Your task to perform on an android device: Play the last video I watched on Youtube Image 0: 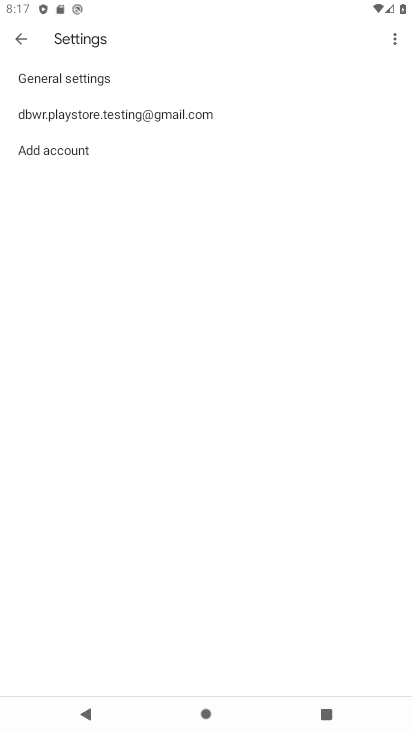
Step 0: press home button
Your task to perform on an android device: Play the last video I watched on Youtube Image 1: 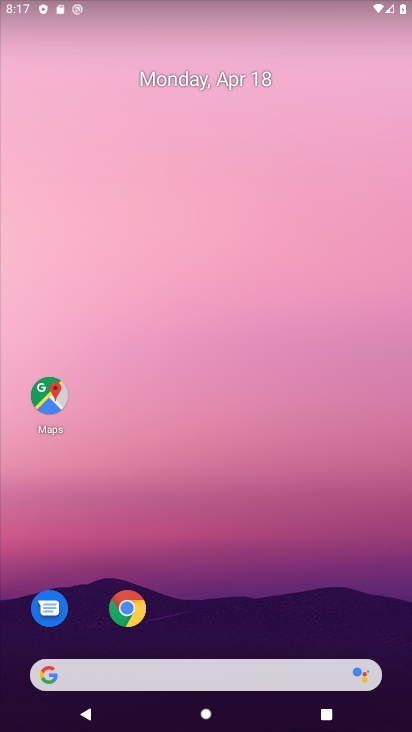
Step 1: drag from (227, 614) to (245, 47)
Your task to perform on an android device: Play the last video I watched on Youtube Image 2: 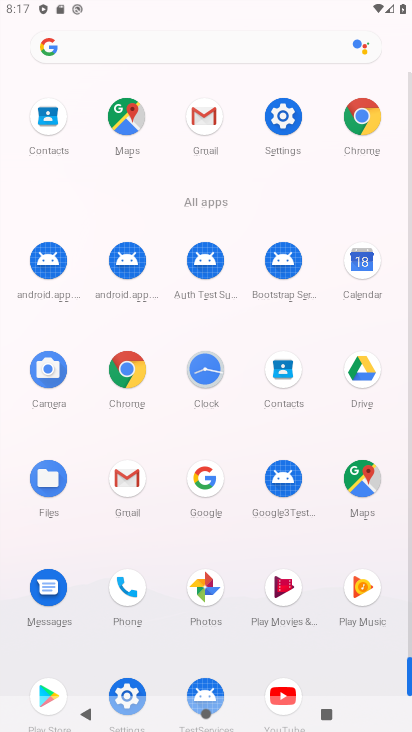
Step 2: drag from (221, 559) to (276, 302)
Your task to perform on an android device: Play the last video I watched on Youtube Image 3: 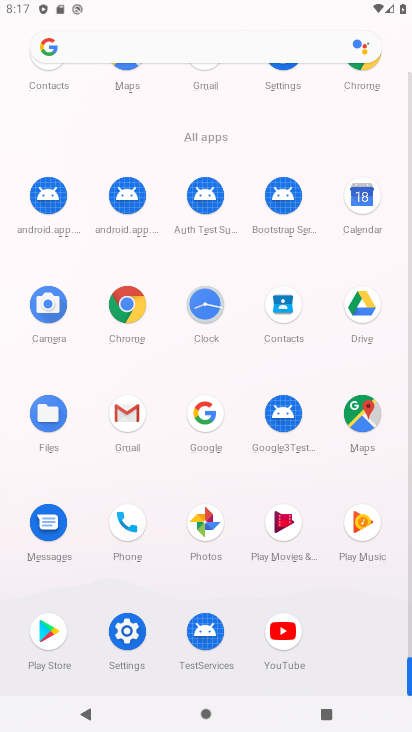
Step 3: click (288, 626)
Your task to perform on an android device: Play the last video I watched on Youtube Image 4: 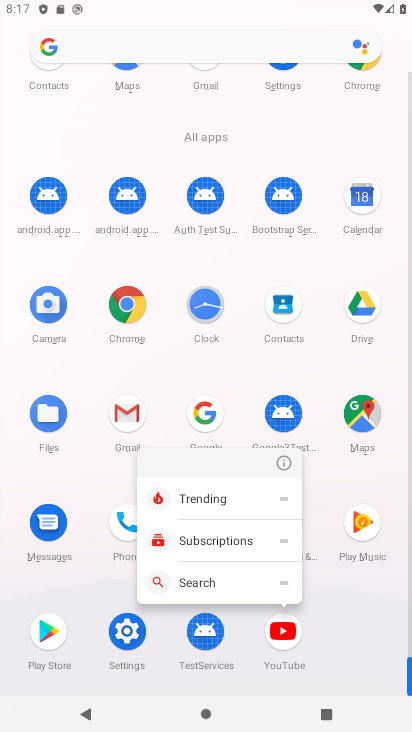
Step 4: click (288, 627)
Your task to perform on an android device: Play the last video I watched on Youtube Image 5: 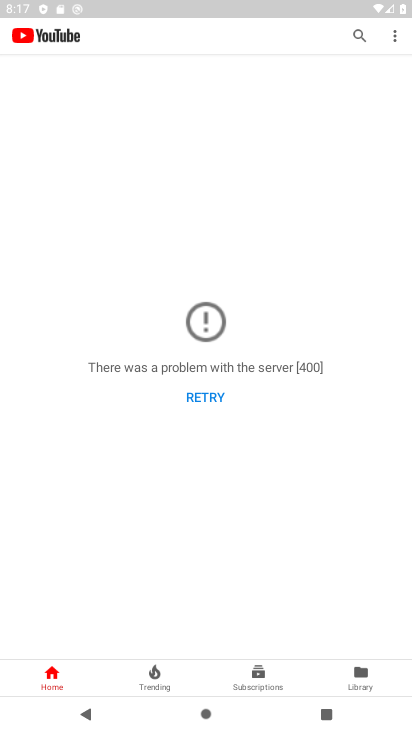
Step 5: click (368, 677)
Your task to perform on an android device: Play the last video I watched on Youtube Image 6: 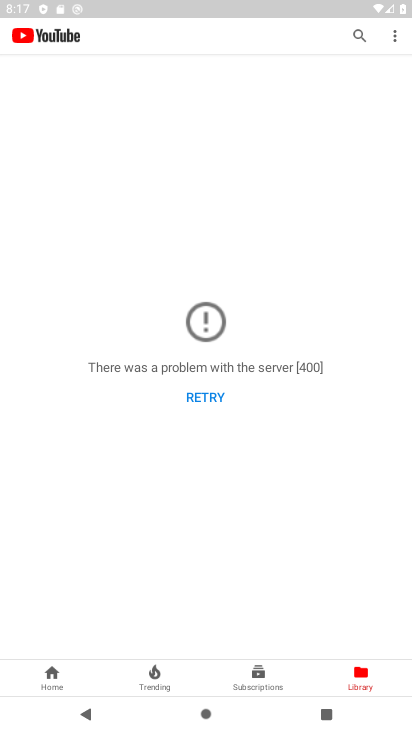
Step 6: click (206, 401)
Your task to perform on an android device: Play the last video I watched on Youtube Image 7: 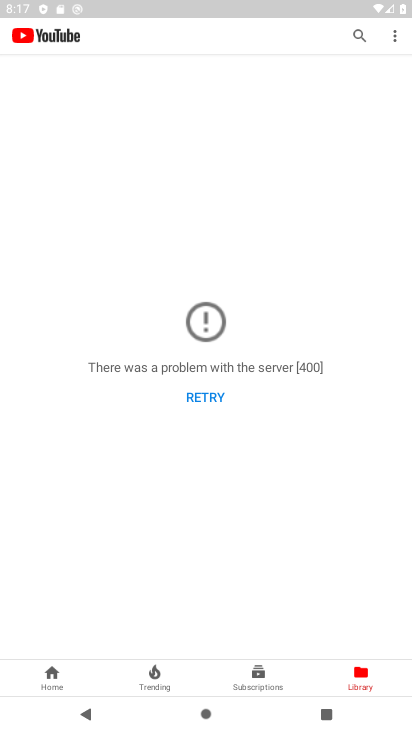
Step 7: click (49, 674)
Your task to perform on an android device: Play the last video I watched on Youtube Image 8: 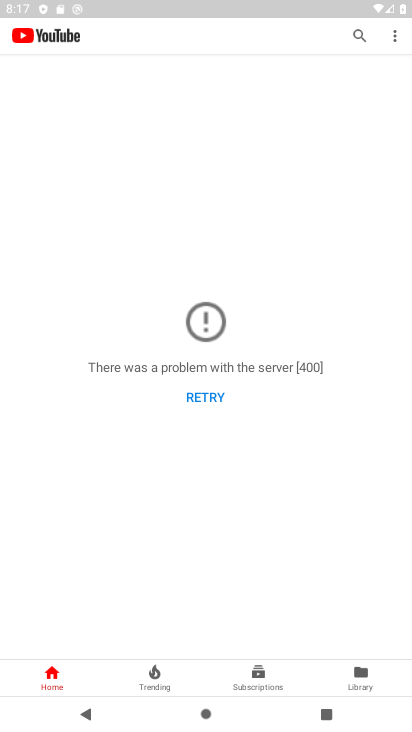
Step 8: click (49, 674)
Your task to perform on an android device: Play the last video I watched on Youtube Image 9: 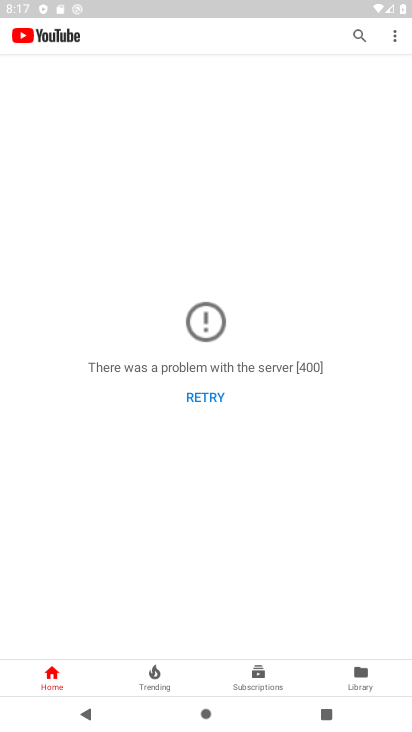
Step 9: click (366, 667)
Your task to perform on an android device: Play the last video I watched on Youtube Image 10: 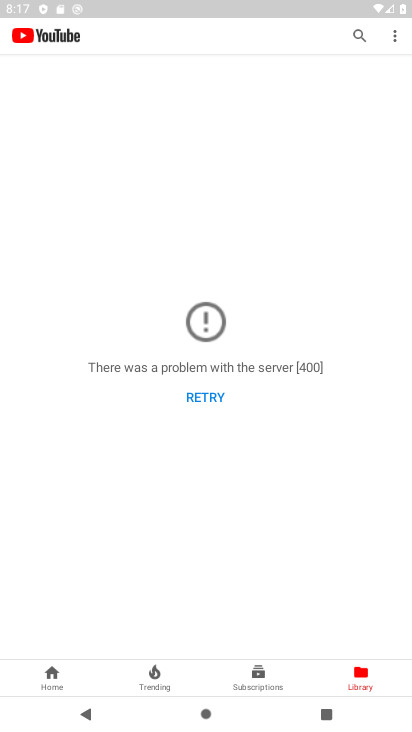
Step 10: press back button
Your task to perform on an android device: Play the last video I watched on Youtube Image 11: 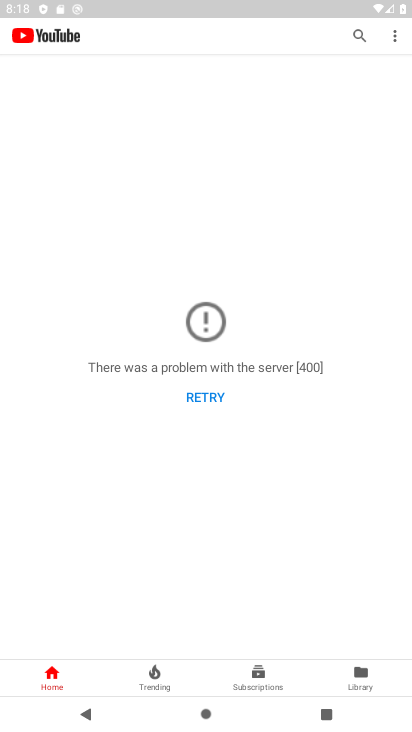
Step 11: press back button
Your task to perform on an android device: Play the last video I watched on Youtube Image 12: 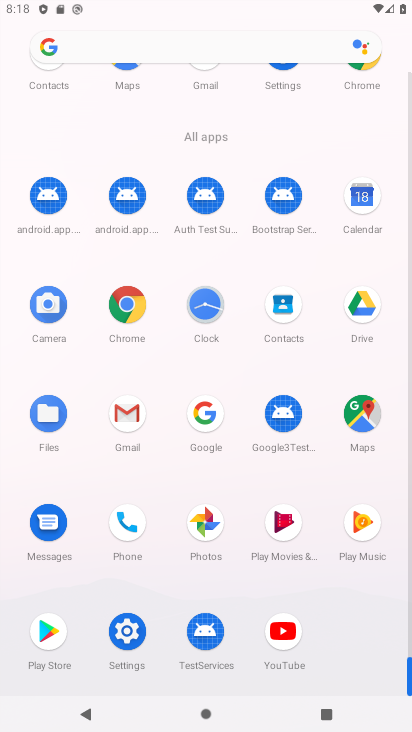
Step 12: click (293, 630)
Your task to perform on an android device: Play the last video I watched on Youtube Image 13: 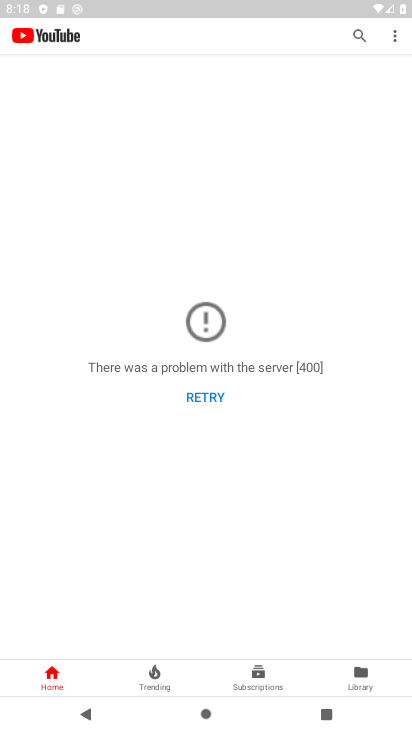
Step 13: click (201, 393)
Your task to perform on an android device: Play the last video I watched on Youtube Image 14: 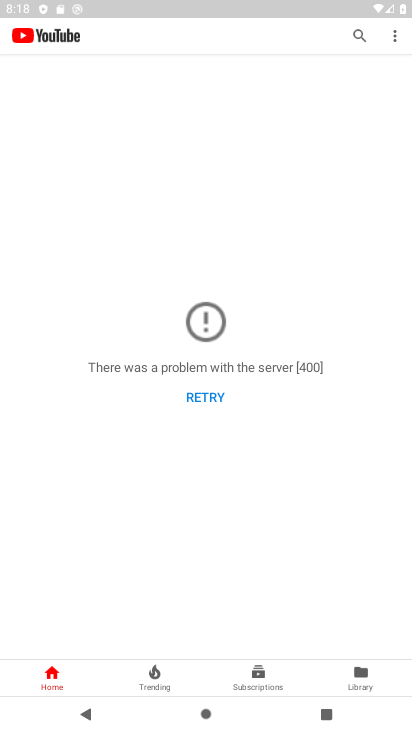
Step 14: click (201, 393)
Your task to perform on an android device: Play the last video I watched on Youtube Image 15: 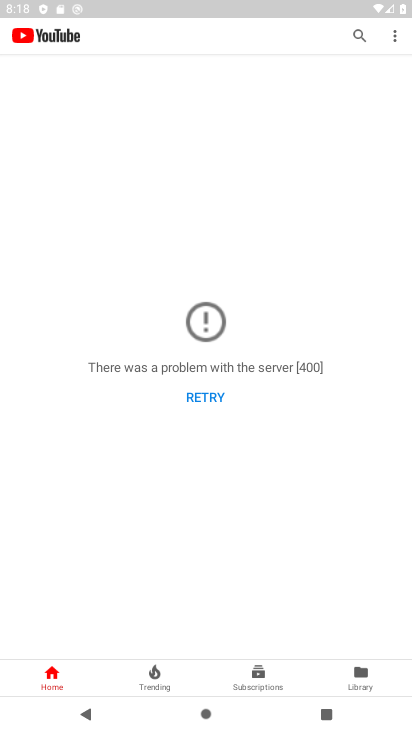
Step 15: click (346, 672)
Your task to perform on an android device: Play the last video I watched on Youtube Image 16: 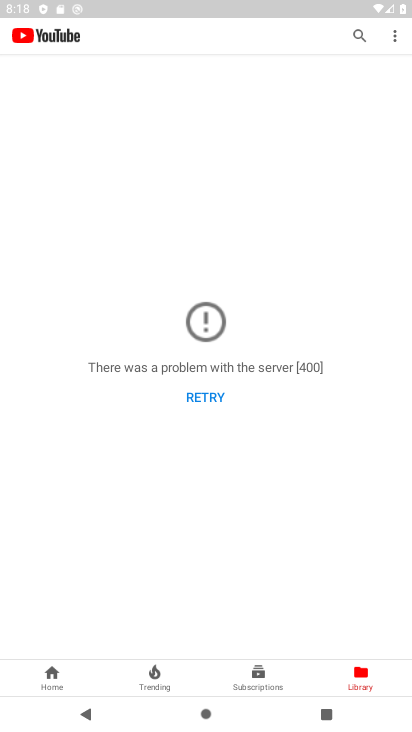
Step 16: task complete